Your task to perform on an android device: Open Amazon Image 0: 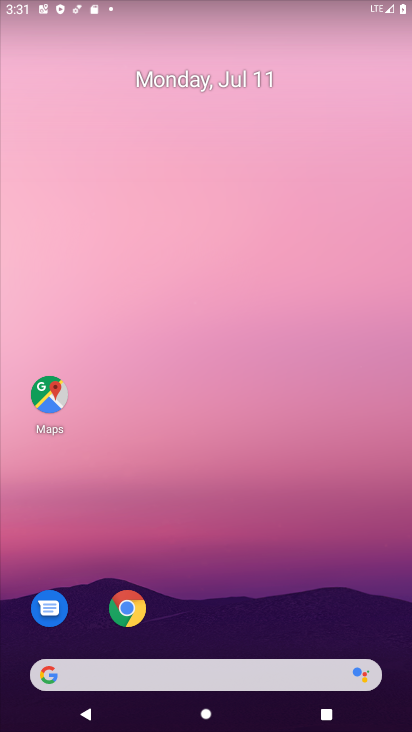
Step 0: click (130, 618)
Your task to perform on an android device: Open Amazon Image 1: 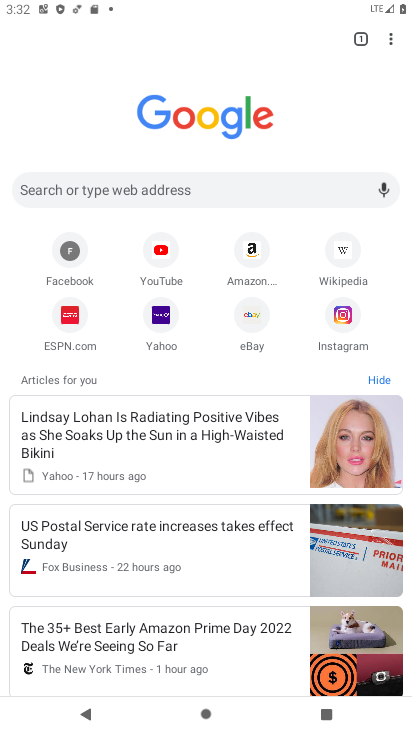
Step 1: click (259, 241)
Your task to perform on an android device: Open Amazon Image 2: 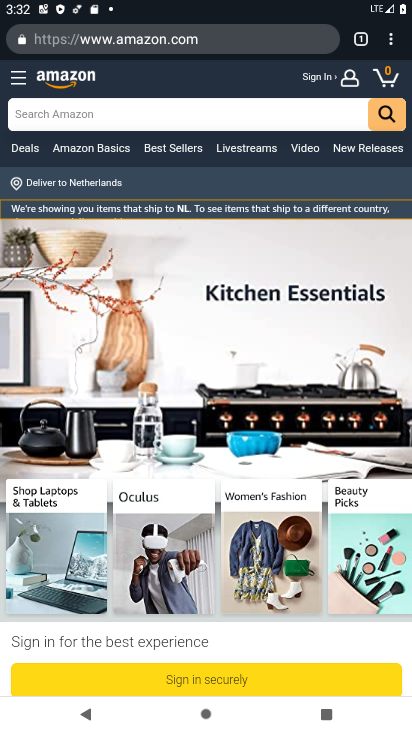
Step 2: task complete